Your task to perform on an android device: Search for vegetarian restaurants on Maps Image 0: 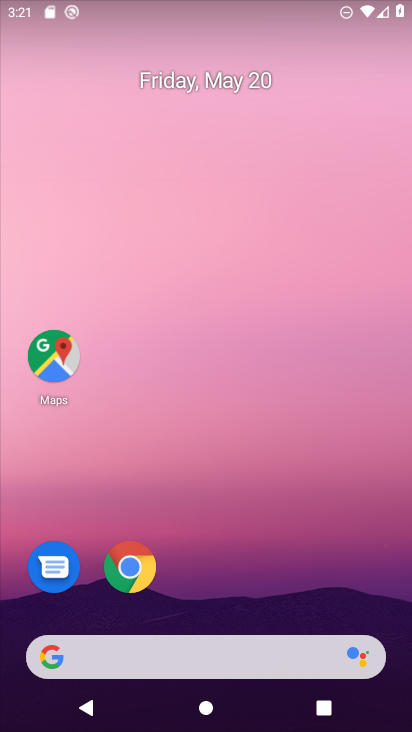
Step 0: drag from (175, 718) to (176, 256)
Your task to perform on an android device: Search for vegetarian restaurants on Maps Image 1: 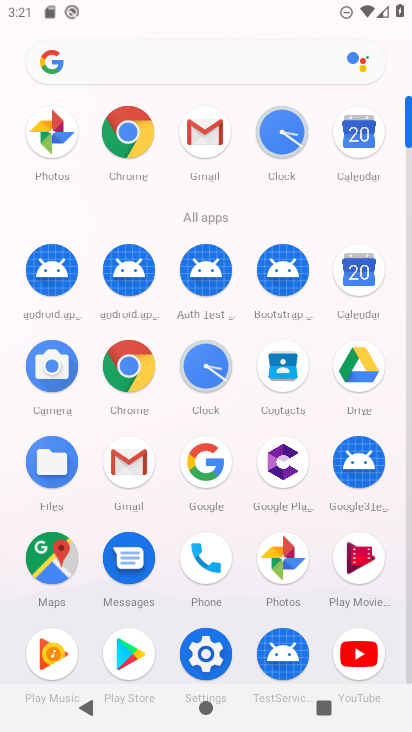
Step 1: click (48, 564)
Your task to perform on an android device: Search for vegetarian restaurants on Maps Image 2: 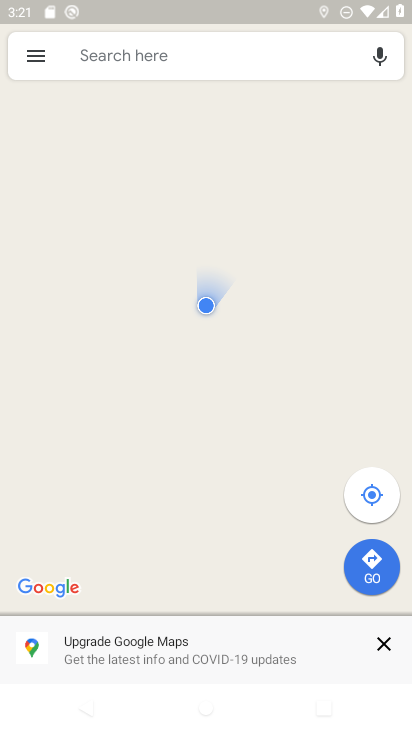
Step 2: click (171, 56)
Your task to perform on an android device: Search for vegetarian restaurants on Maps Image 3: 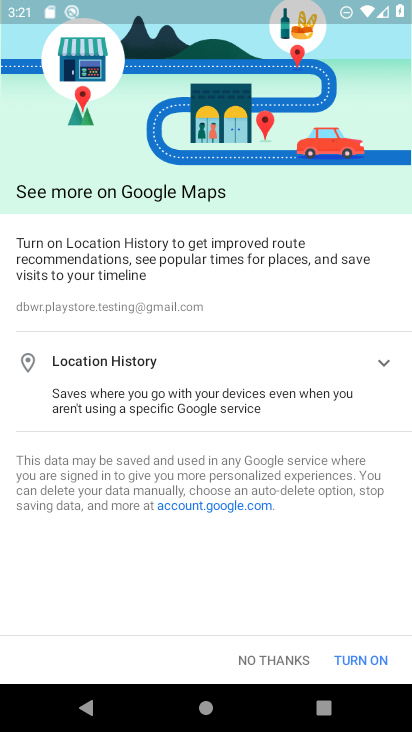
Step 3: type "v"
Your task to perform on an android device: Search for vegetarian restaurants on Maps Image 4: 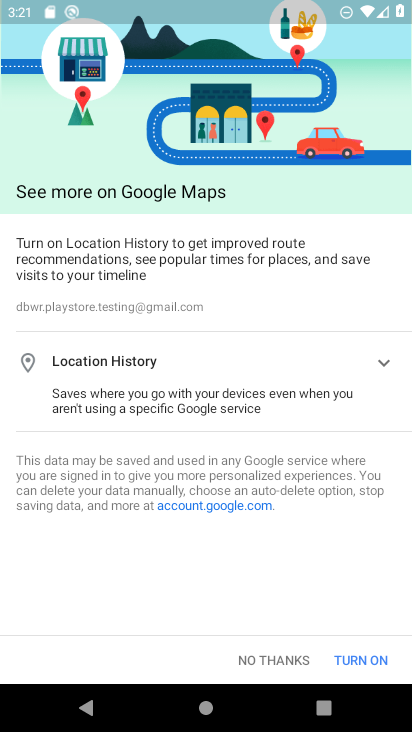
Step 4: click (285, 661)
Your task to perform on an android device: Search for vegetarian restaurants on Maps Image 5: 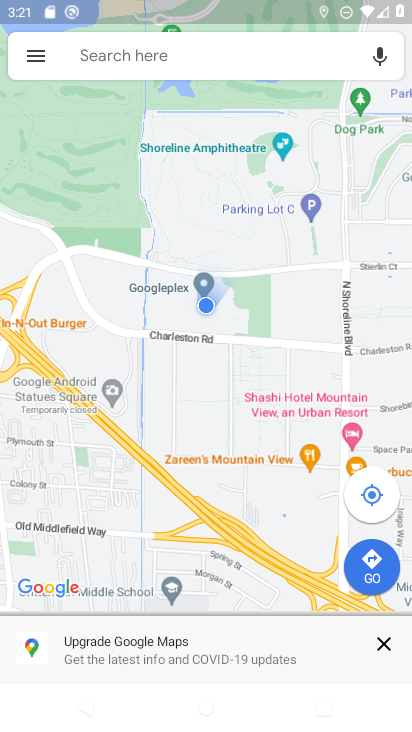
Step 5: click (133, 50)
Your task to perform on an android device: Search for vegetarian restaurants on Maps Image 6: 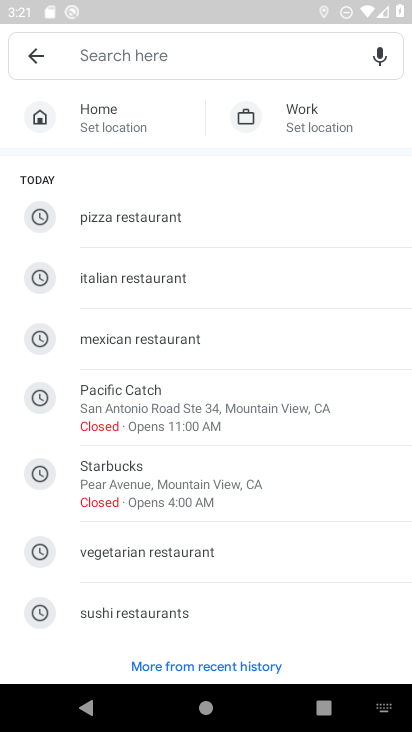
Step 6: type "vegetarian restaurants"
Your task to perform on an android device: Search for vegetarian restaurants on Maps Image 7: 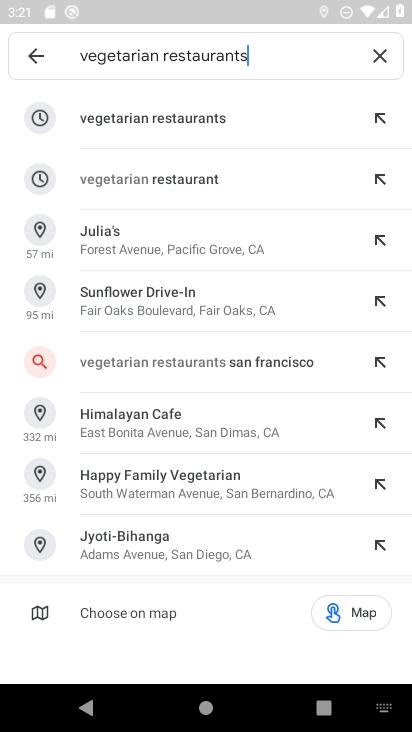
Step 7: click (130, 119)
Your task to perform on an android device: Search for vegetarian restaurants on Maps Image 8: 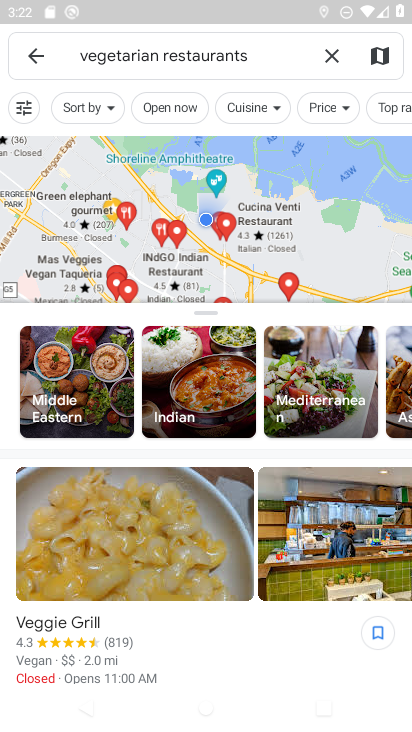
Step 8: task complete